Your task to perform on an android device: change notification settings in the gmail app Image 0: 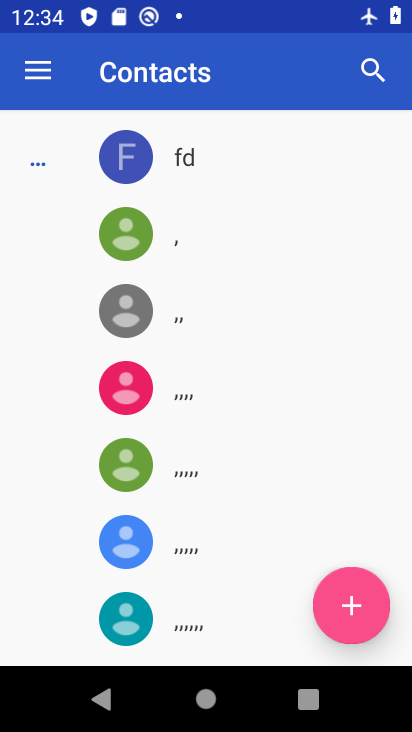
Step 0: press home button
Your task to perform on an android device: change notification settings in the gmail app Image 1: 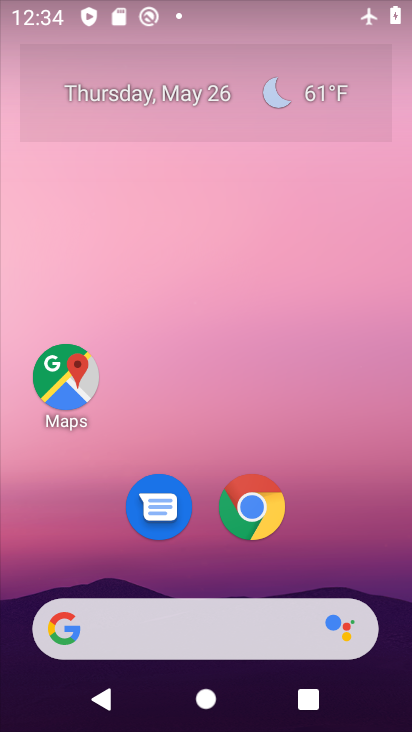
Step 1: drag from (342, 534) to (290, 83)
Your task to perform on an android device: change notification settings in the gmail app Image 2: 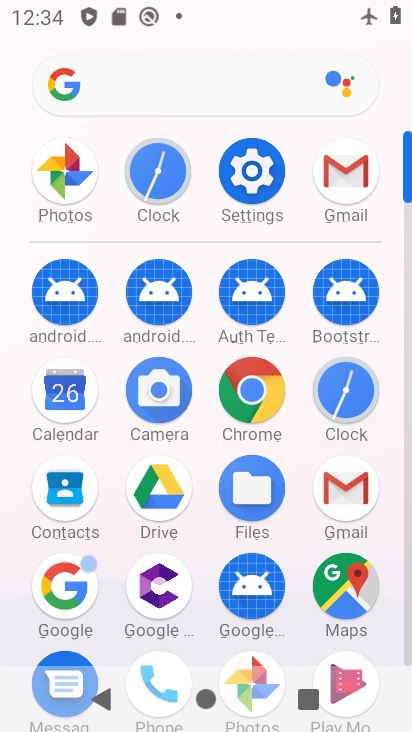
Step 2: click (357, 520)
Your task to perform on an android device: change notification settings in the gmail app Image 3: 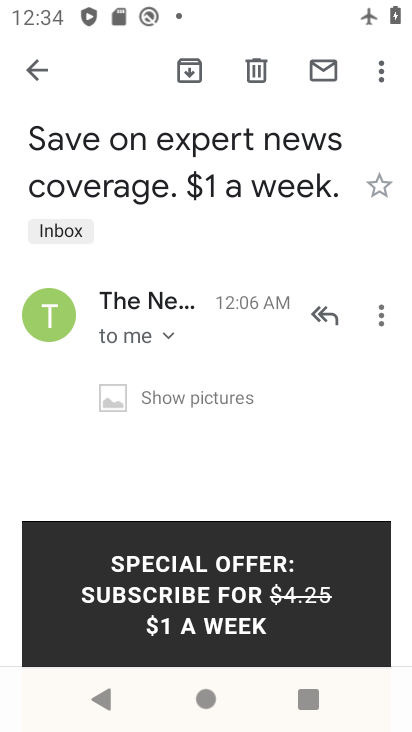
Step 3: click (381, 78)
Your task to perform on an android device: change notification settings in the gmail app Image 4: 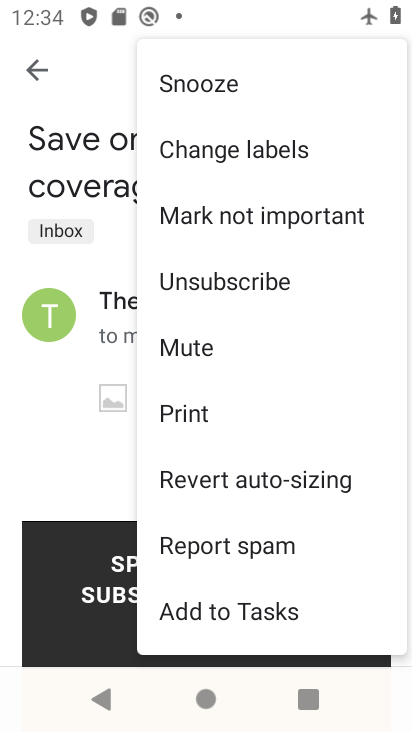
Step 4: press home button
Your task to perform on an android device: change notification settings in the gmail app Image 5: 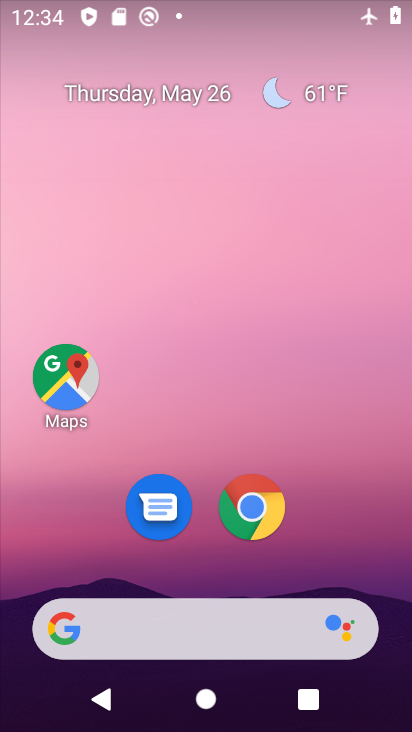
Step 5: drag from (340, 523) to (341, 6)
Your task to perform on an android device: change notification settings in the gmail app Image 6: 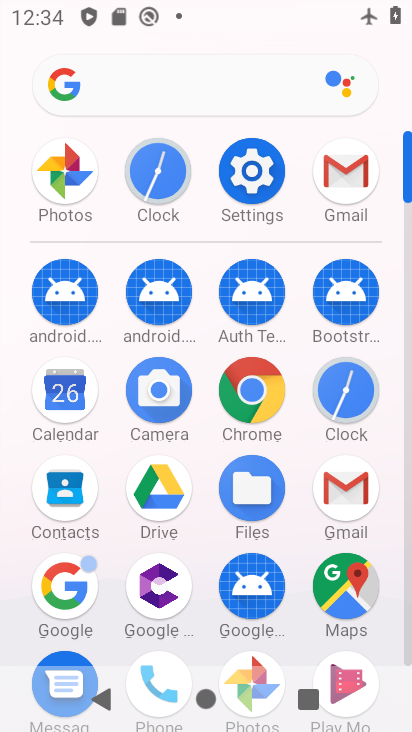
Step 6: click (244, 179)
Your task to perform on an android device: change notification settings in the gmail app Image 7: 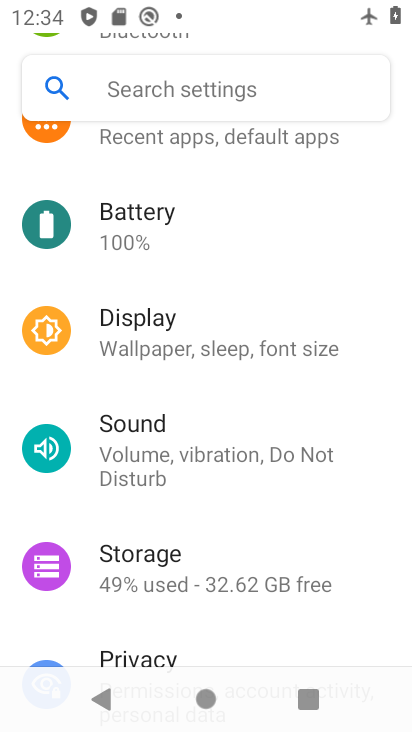
Step 7: drag from (215, 464) to (195, 676)
Your task to perform on an android device: change notification settings in the gmail app Image 8: 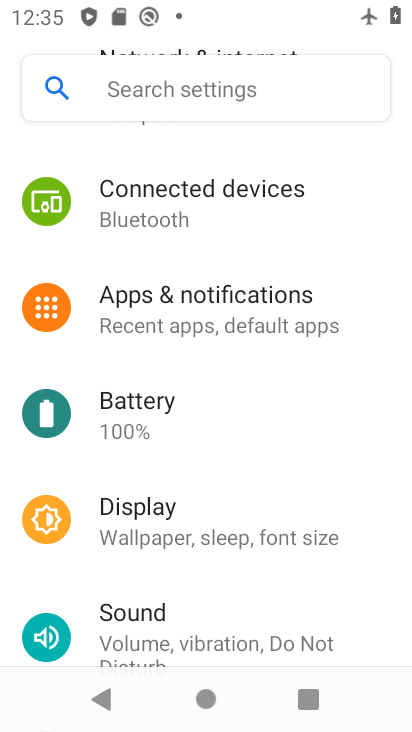
Step 8: drag from (195, 175) to (187, 419)
Your task to perform on an android device: change notification settings in the gmail app Image 9: 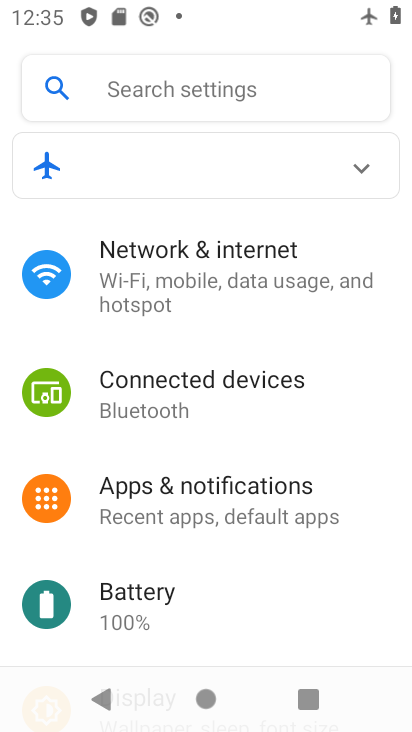
Step 9: click (187, 422)
Your task to perform on an android device: change notification settings in the gmail app Image 10: 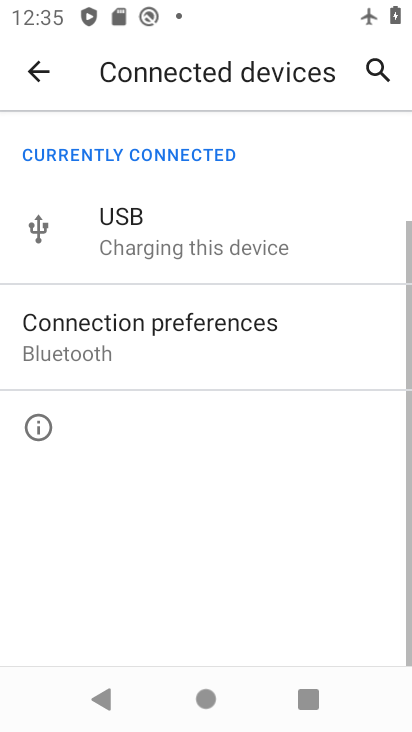
Step 10: press home button
Your task to perform on an android device: change notification settings in the gmail app Image 11: 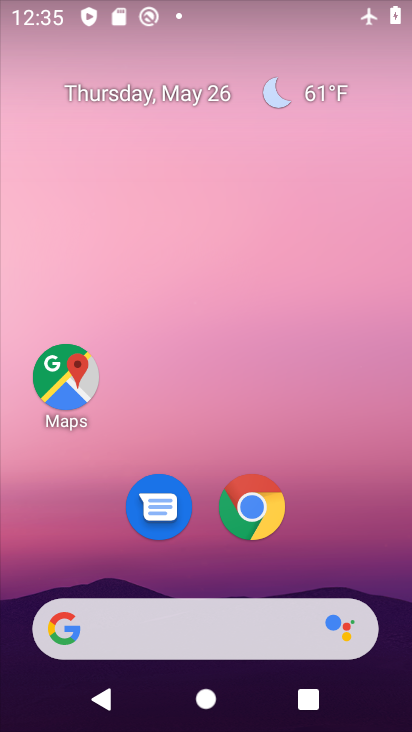
Step 11: drag from (295, 413) to (342, 0)
Your task to perform on an android device: change notification settings in the gmail app Image 12: 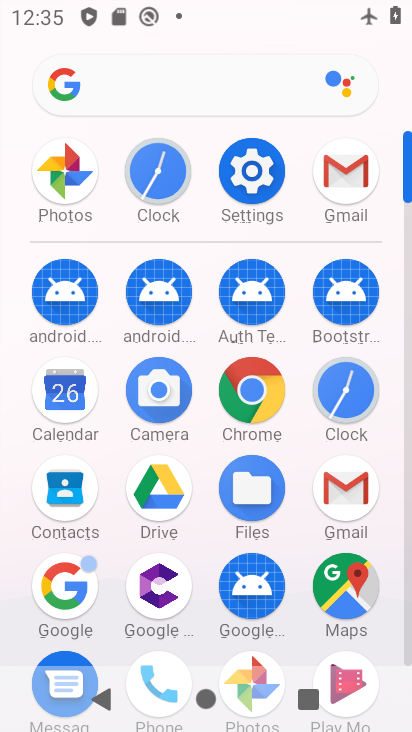
Step 12: click (338, 203)
Your task to perform on an android device: change notification settings in the gmail app Image 13: 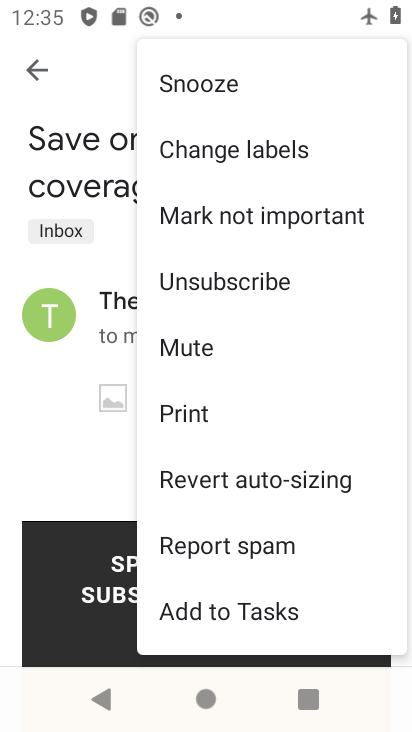
Step 13: task complete